Your task to perform on an android device: star an email in the gmail app Image 0: 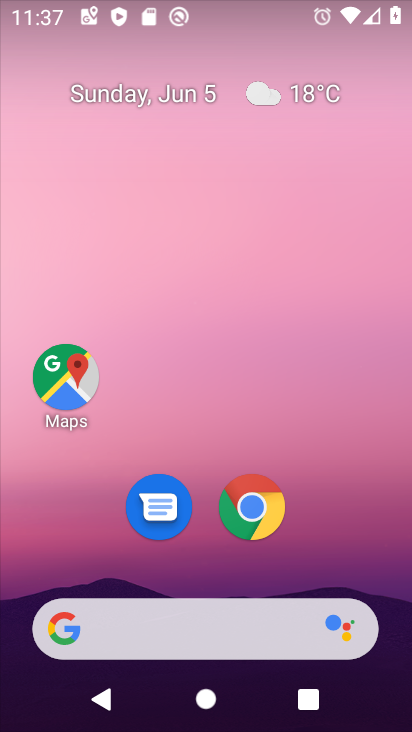
Step 0: drag from (226, 719) to (233, 41)
Your task to perform on an android device: star an email in the gmail app Image 1: 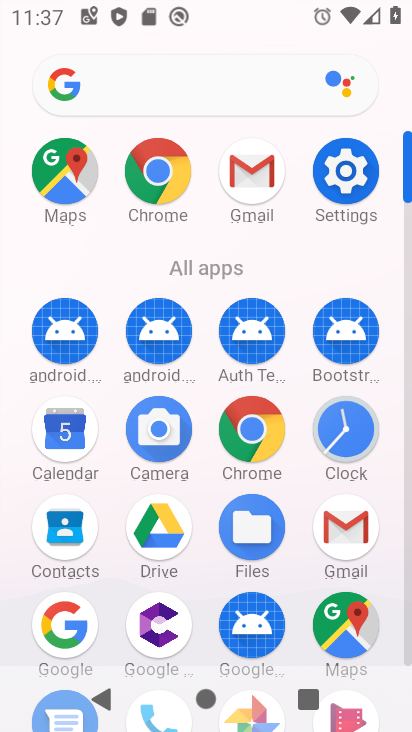
Step 1: click (338, 522)
Your task to perform on an android device: star an email in the gmail app Image 2: 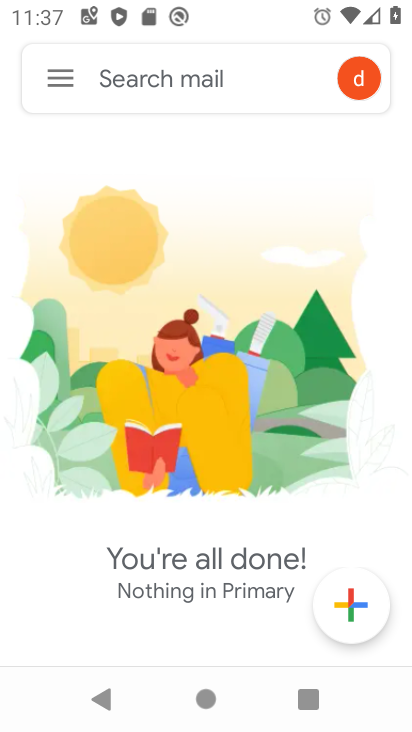
Step 2: click (51, 76)
Your task to perform on an android device: star an email in the gmail app Image 3: 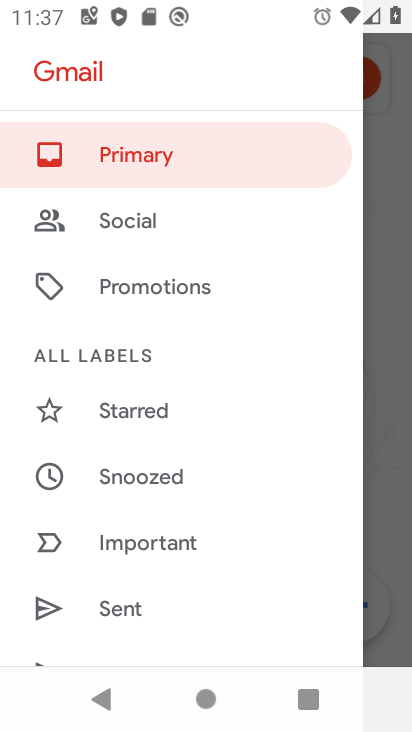
Step 3: drag from (188, 150) to (180, 449)
Your task to perform on an android device: star an email in the gmail app Image 4: 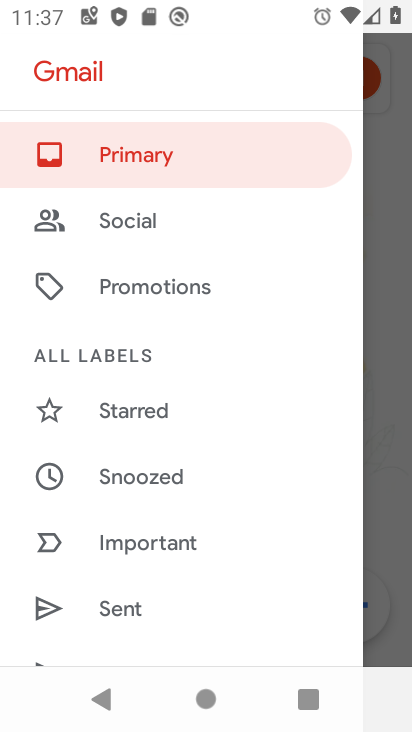
Step 4: click (155, 157)
Your task to perform on an android device: star an email in the gmail app Image 5: 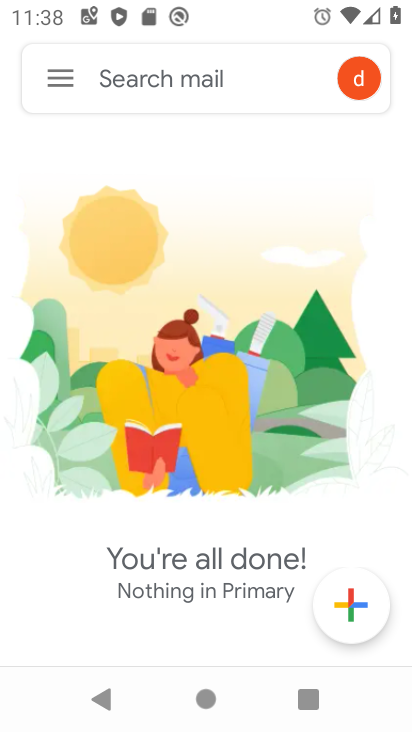
Step 5: task complete